Your task to perform on an android device: Go to Wikipedia Image 0: 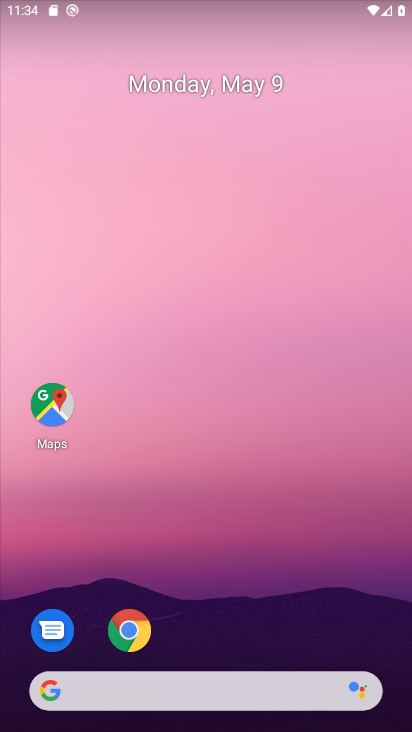
Step 0: drag from (66, 138) to (145, 73)
Your task to perform on an android device: Go to Wikipedia Image 1: 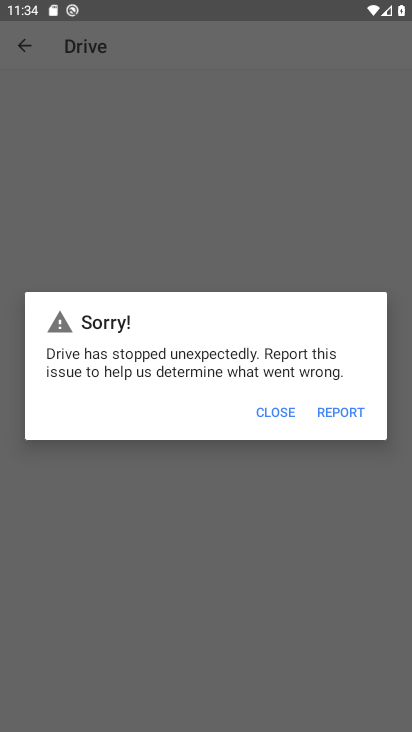
Step 1: press home button
Your task to perform on an android device: Go to Wikipedia Image 2: 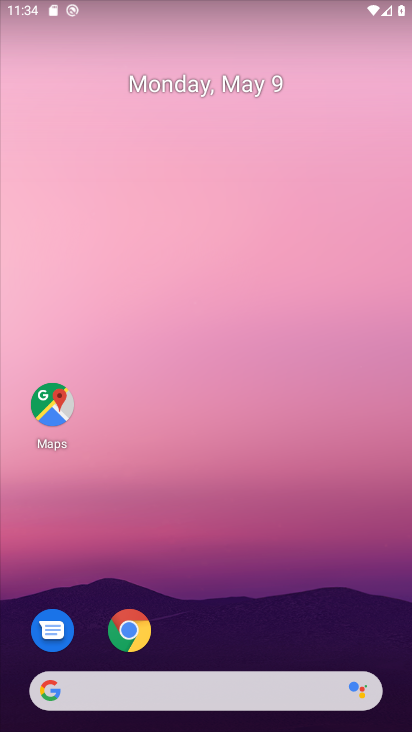
Step 2: click (151, 625)
Your task to perform on an android device: Go to Wikipedia Image 3: 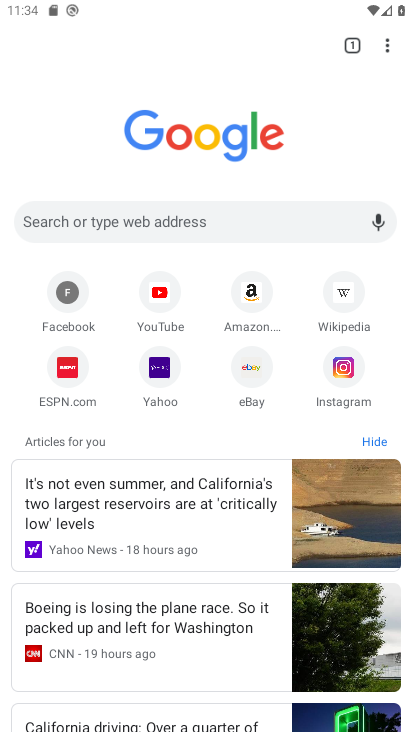
Step 3: click (351, 288)
Your task to perform on an android device: Go to Wikipedia Image 4: 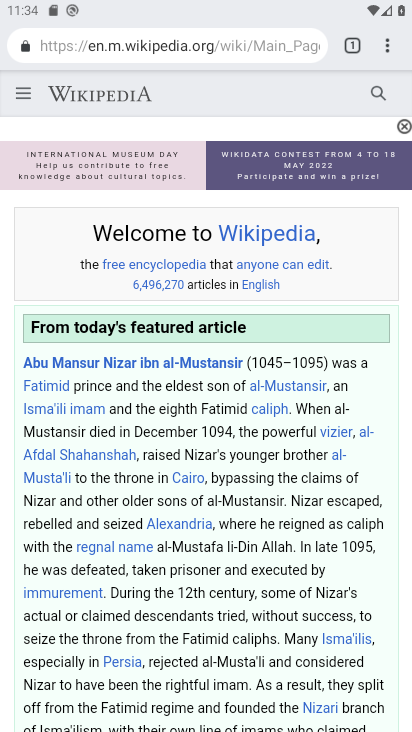
Step 4: task complete